Your task to perform on an android device: Go to Android settings Image 0: 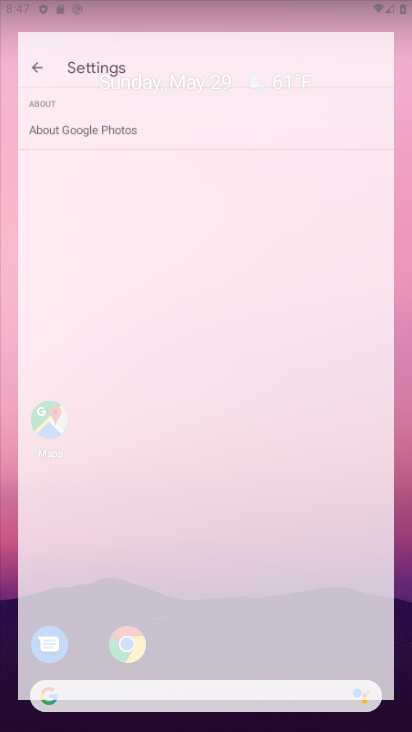
Step 0: click (243, 355)
Your task to perform on an android device: Go to Android settings Image 1: 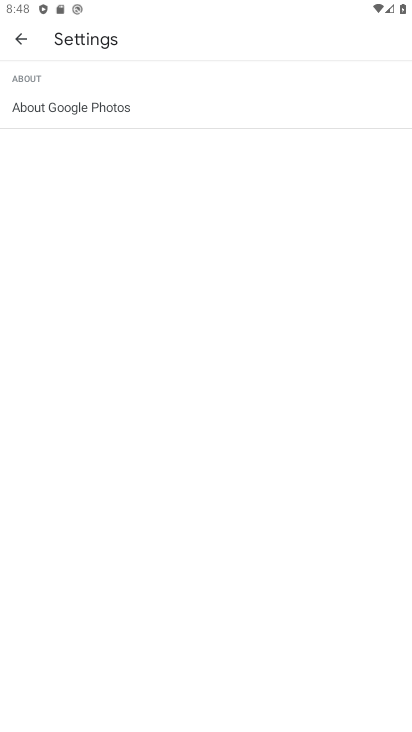
Step 1: press home button
Your task to perform on an android device: Go to Android settings Image 2: 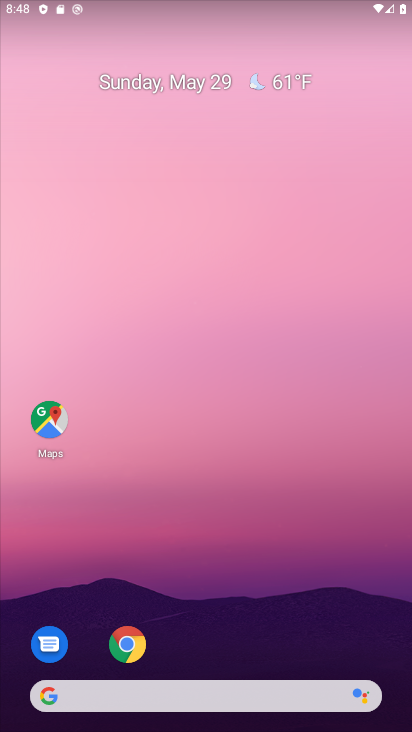
Step 2: drag from (223, 690) to (202, 209)
Your task to perform on an android device: Go to Android settings Image 3: 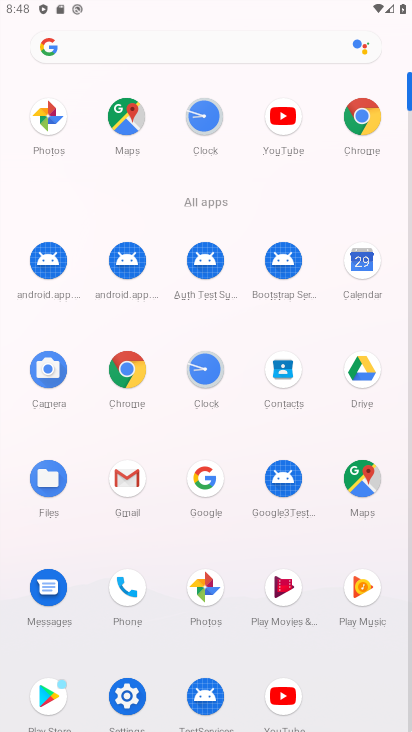
Step 3: click (130, 689)
Your task to perform on an android device: Go to Android settings Image 4: 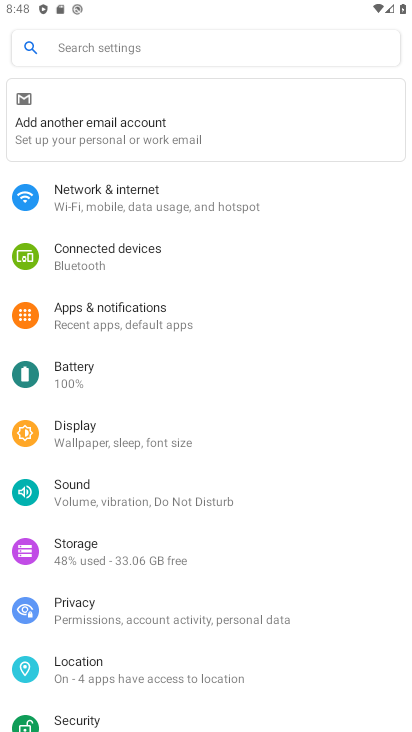
Step 4: task complete